Your task to perform on an android device: turn off airplane mode Image 0: 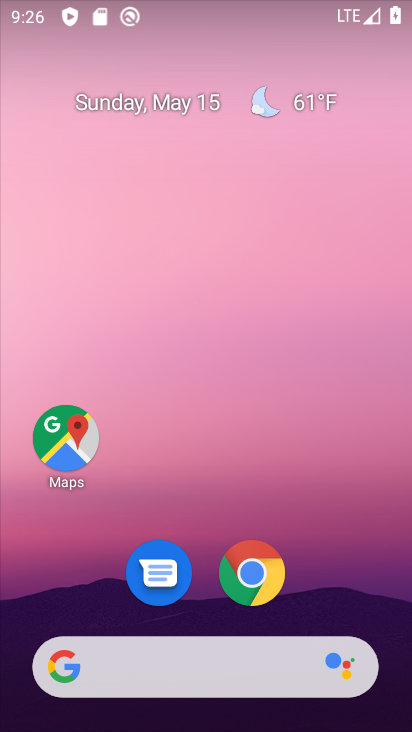
Step 0: drag from (258, 5) to (340, 593)
Your task to perform on an android device: turn off airplane mode Image 1: 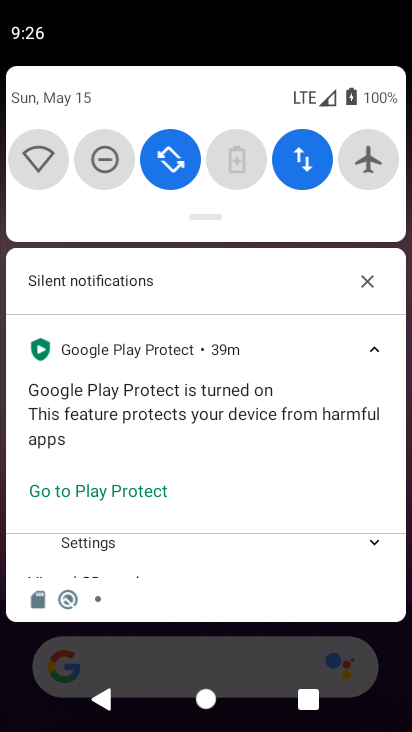
Step 1: click (362, 166)
Your task to perform on an android device: turn off airplane mode Image 2: 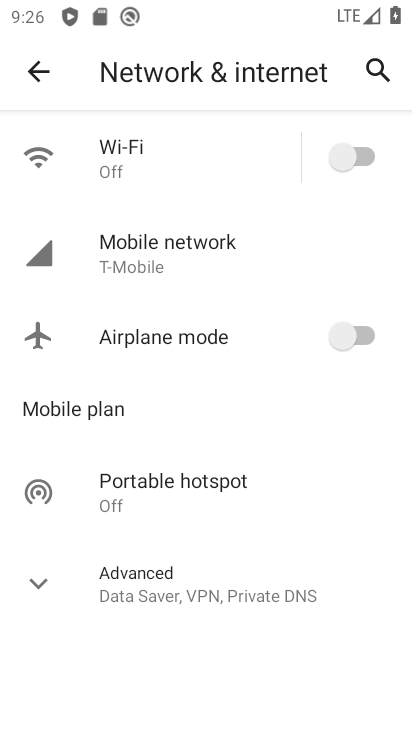
Step 2: task complete